Your task to perform on an android device: search for starred emails in the gmail app Image 0: 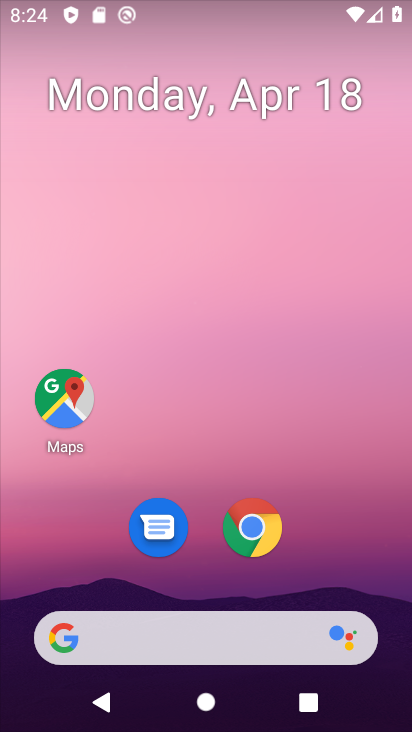
Step 0: drag from (205, 488) to (234, 128)
Your task to perform on an android device: search for starred emails in the gmail app Image 1: 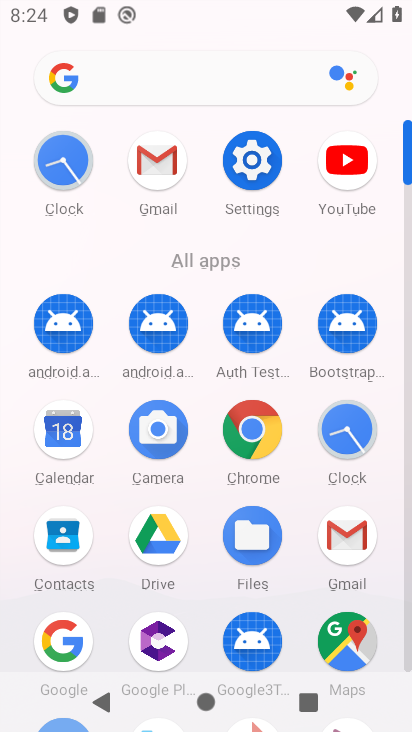
Step 1: click (355, 537)
Your task to perform on an android device: search for starred emails in the gmail app Image 2: 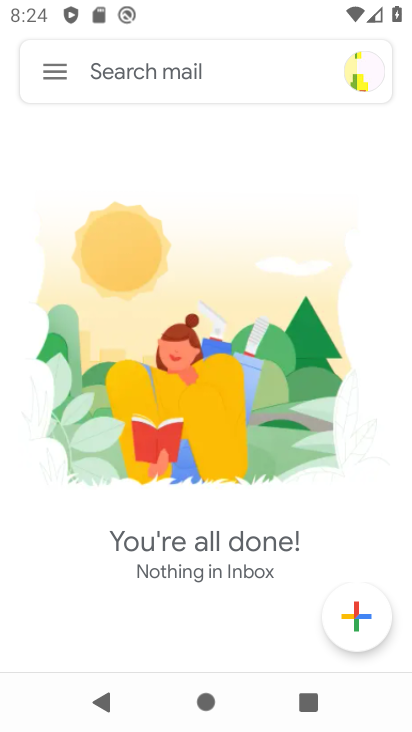
Step 2: click (47, 81)
Your task to perform on an android device: search for starred emails in the gmail app Image 3: 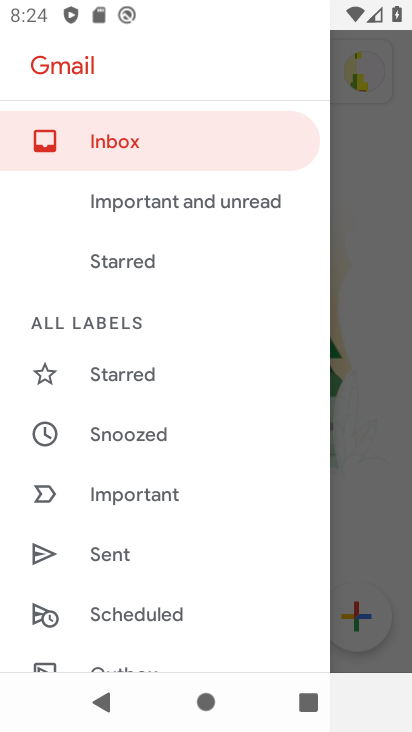
Step 3: click (166, 379)
Your task to perform on an android device: search for starred emails in the gmail app Image 4: 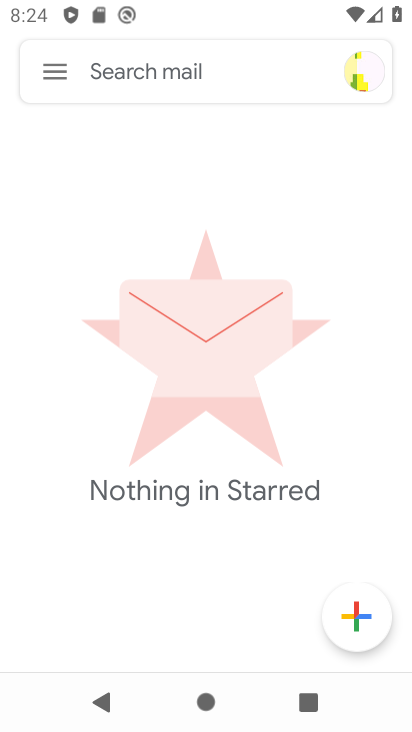
Step 4: task complete